Your task to perform on an android device: View the shopping cart on target. Image 0: 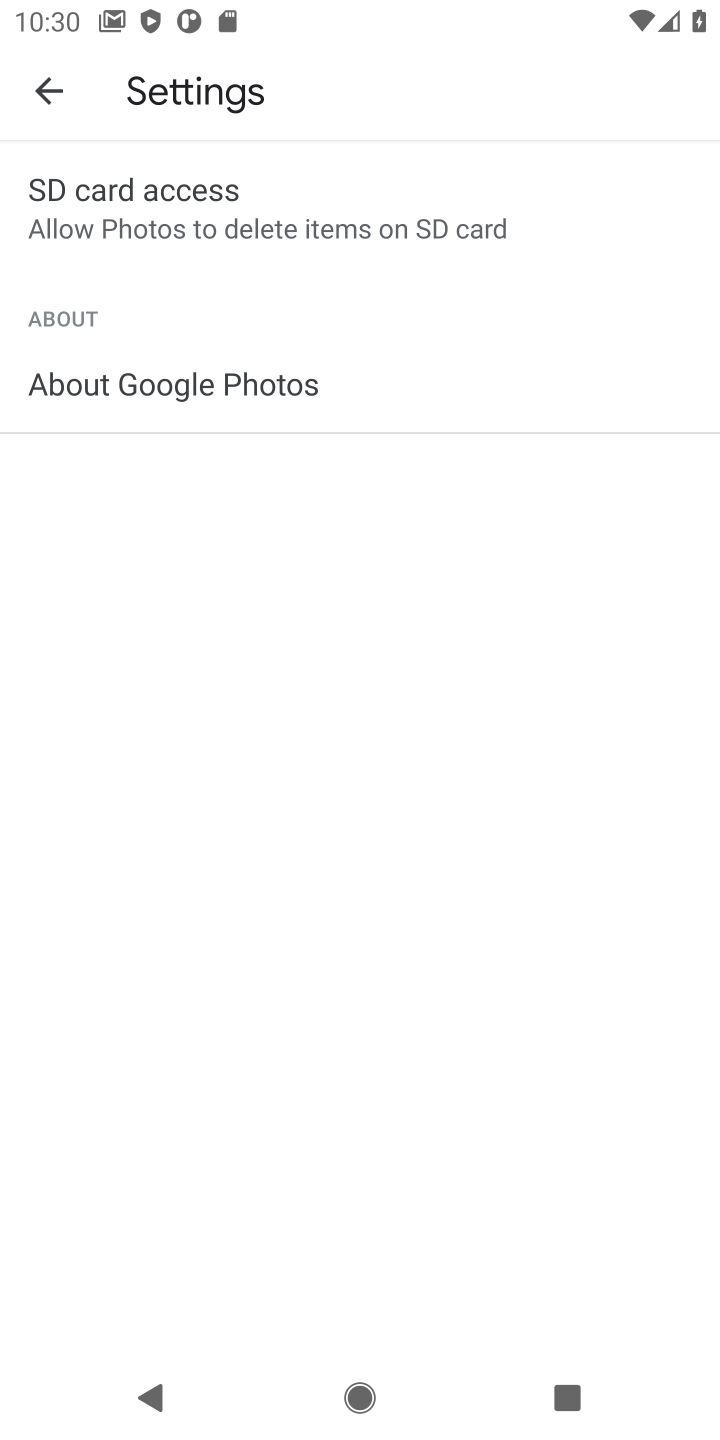
Step 0: press home button
Your task to perform on an android device: View the shopping cart on target. Image 1: 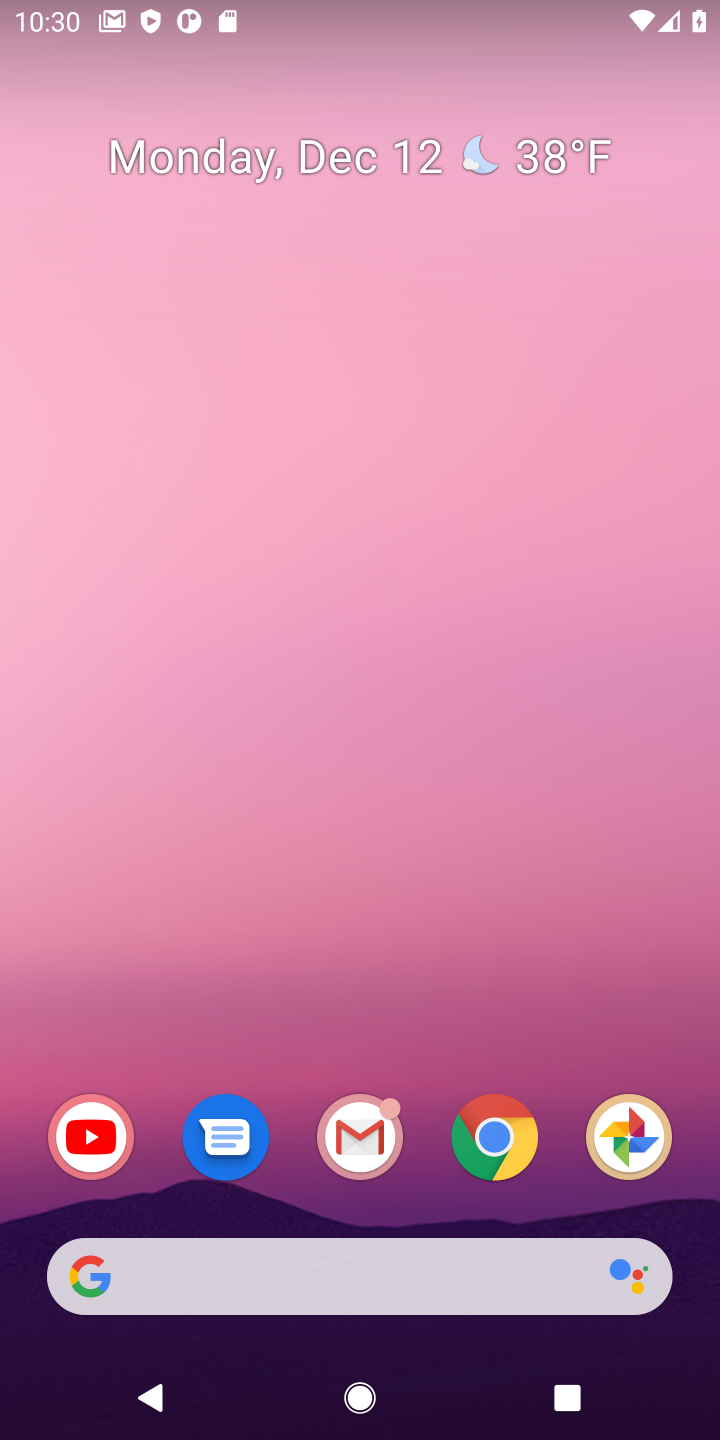
Step 1: click (434, 1268)
Your task to perform on an android device: View the shopping cart on target. Image 2: 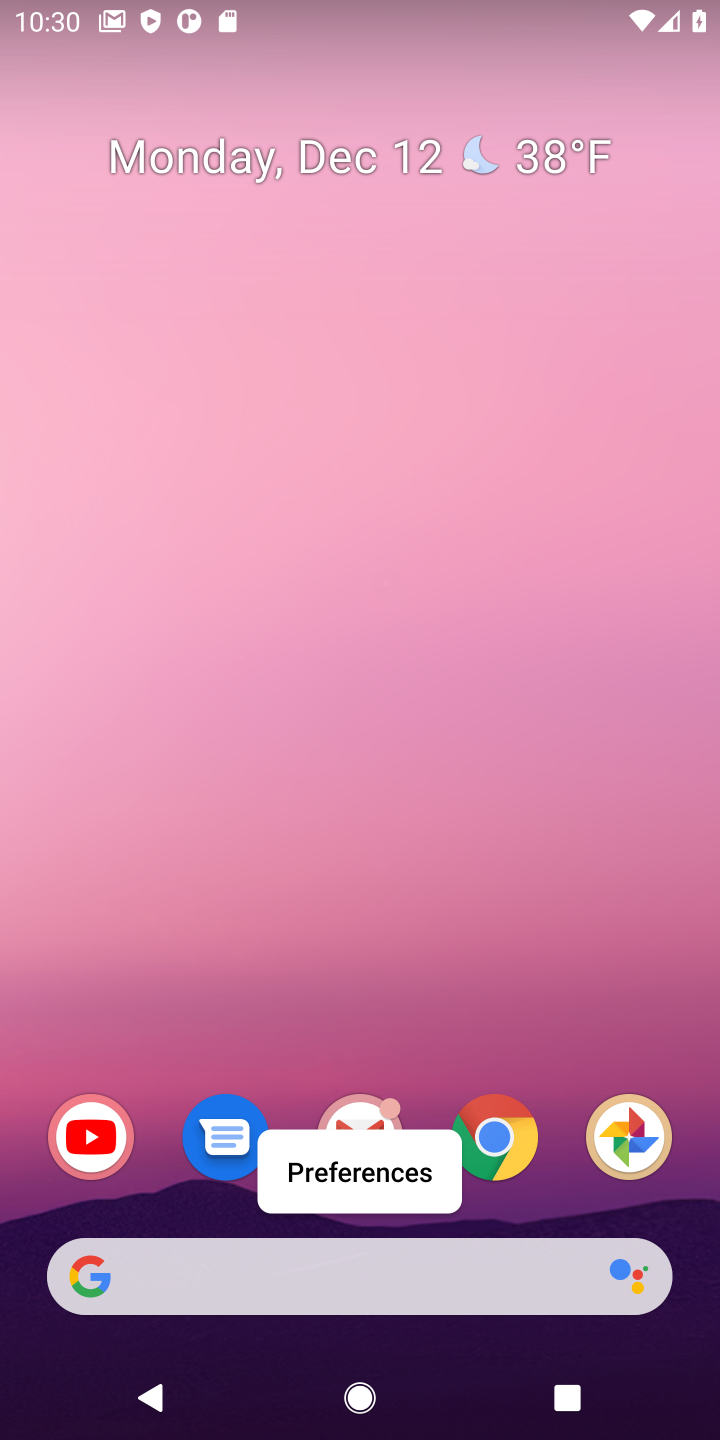
Step 2: click (356, 1286)
Your task to perform on an android device: View the shopping cart on target. Image 3: 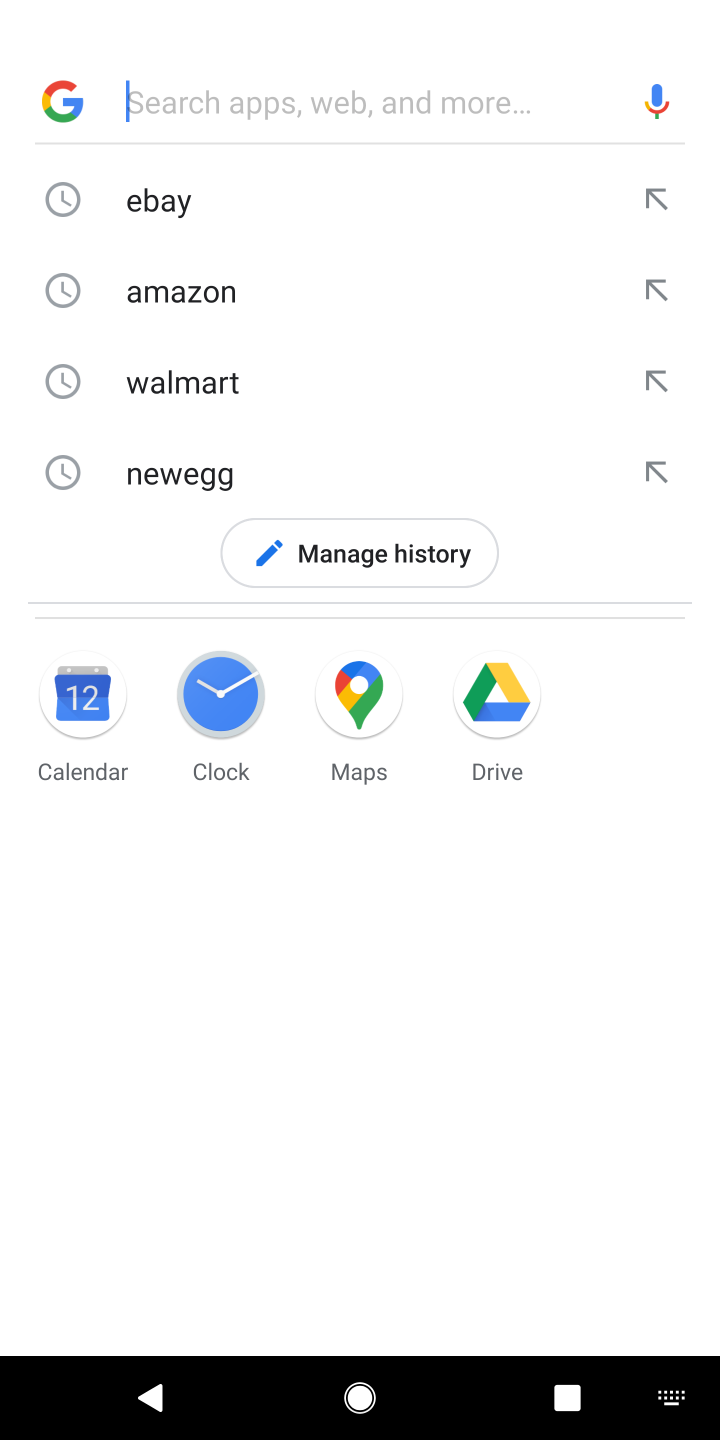
Step 3: type "target"
Your task to perform on an android device: View the shopping cart on target. Image 4: 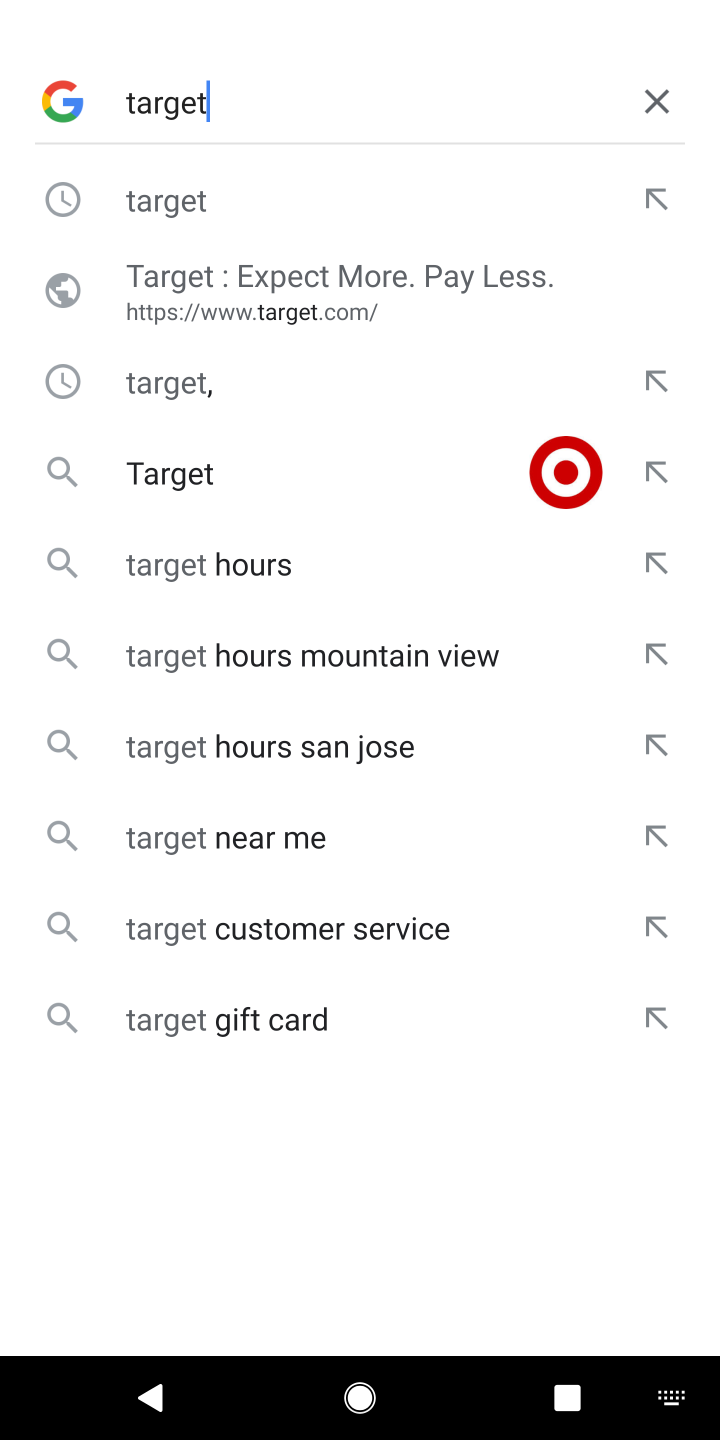
Step 4: click (396, 486)
Your task to perform on an android device: View the shopping cart on target. Image 5: 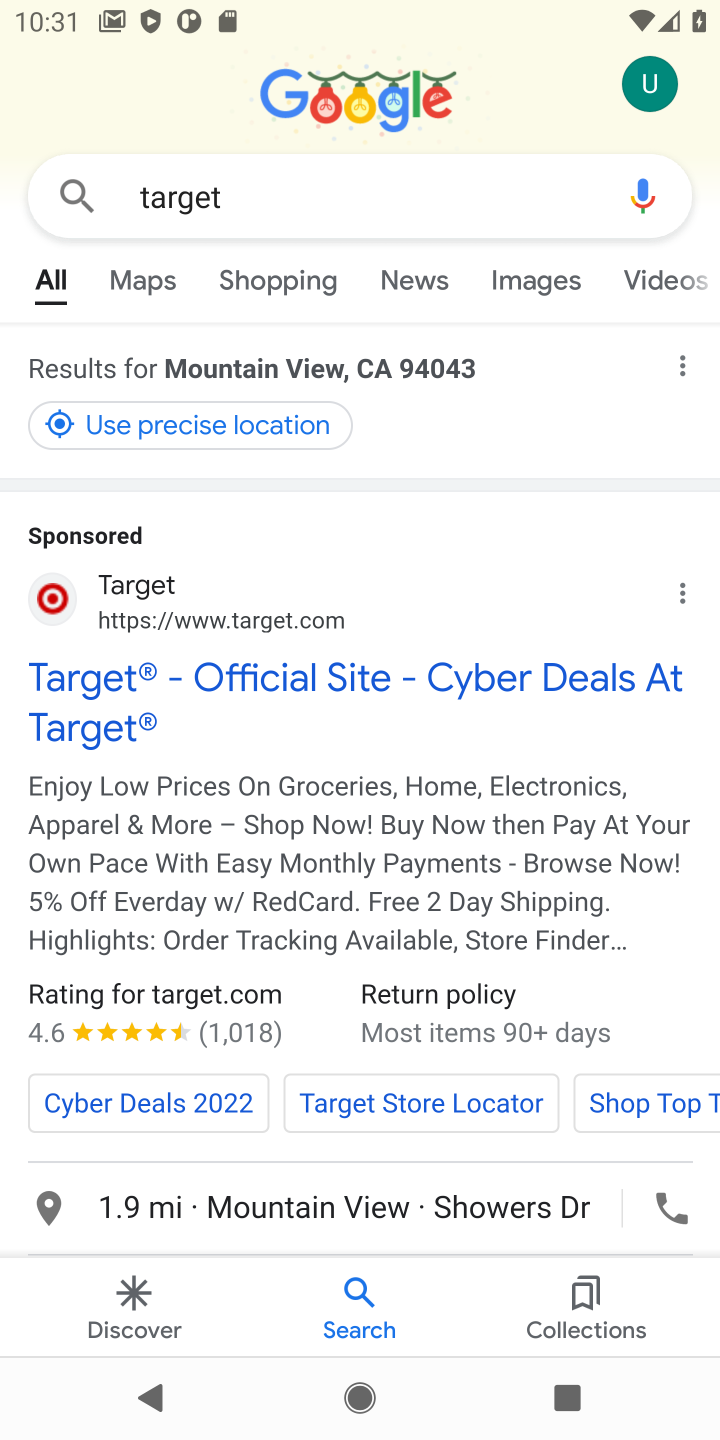
Step 5: click (173, 687)
Your task to perform on an android device: View the shopping cart on target. Image 6: 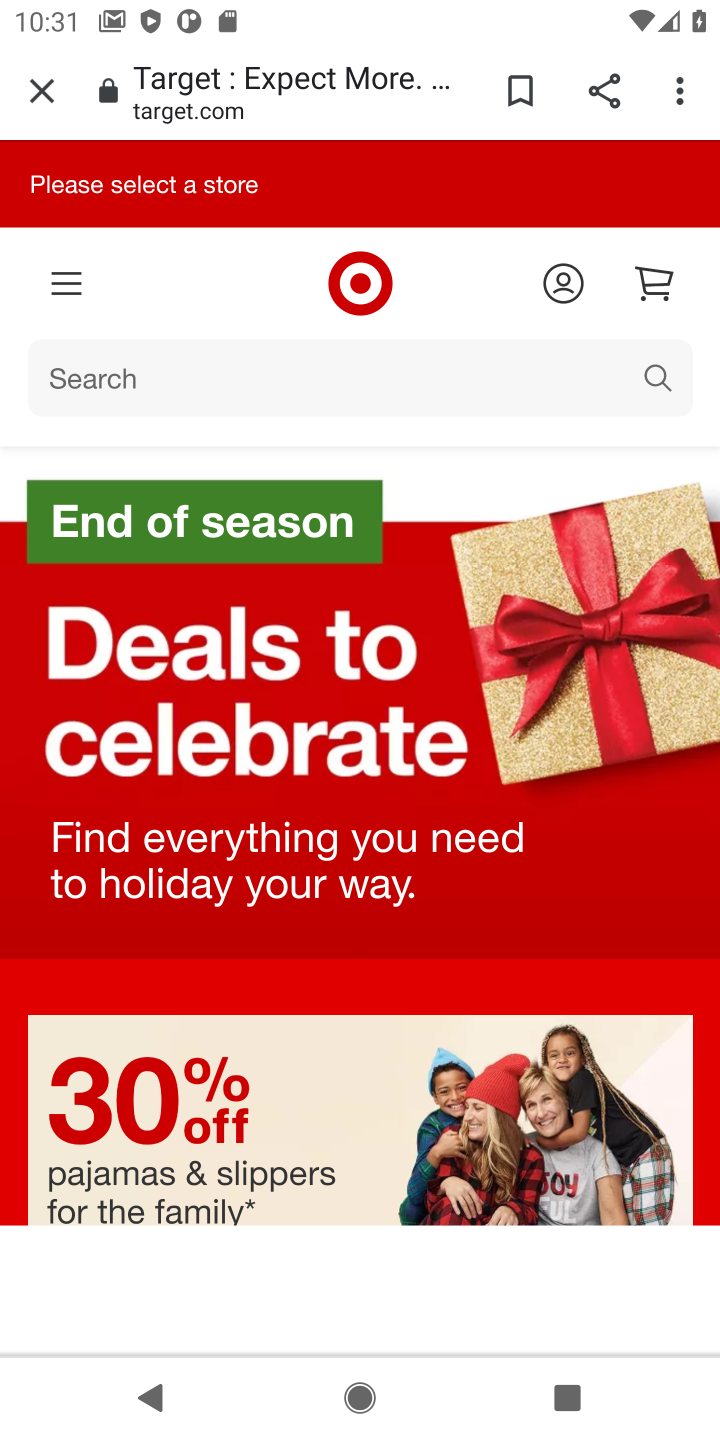
Step 6: click (207, 396)
Your task to perform on an android device: View the shopping cart on target. Image 7: 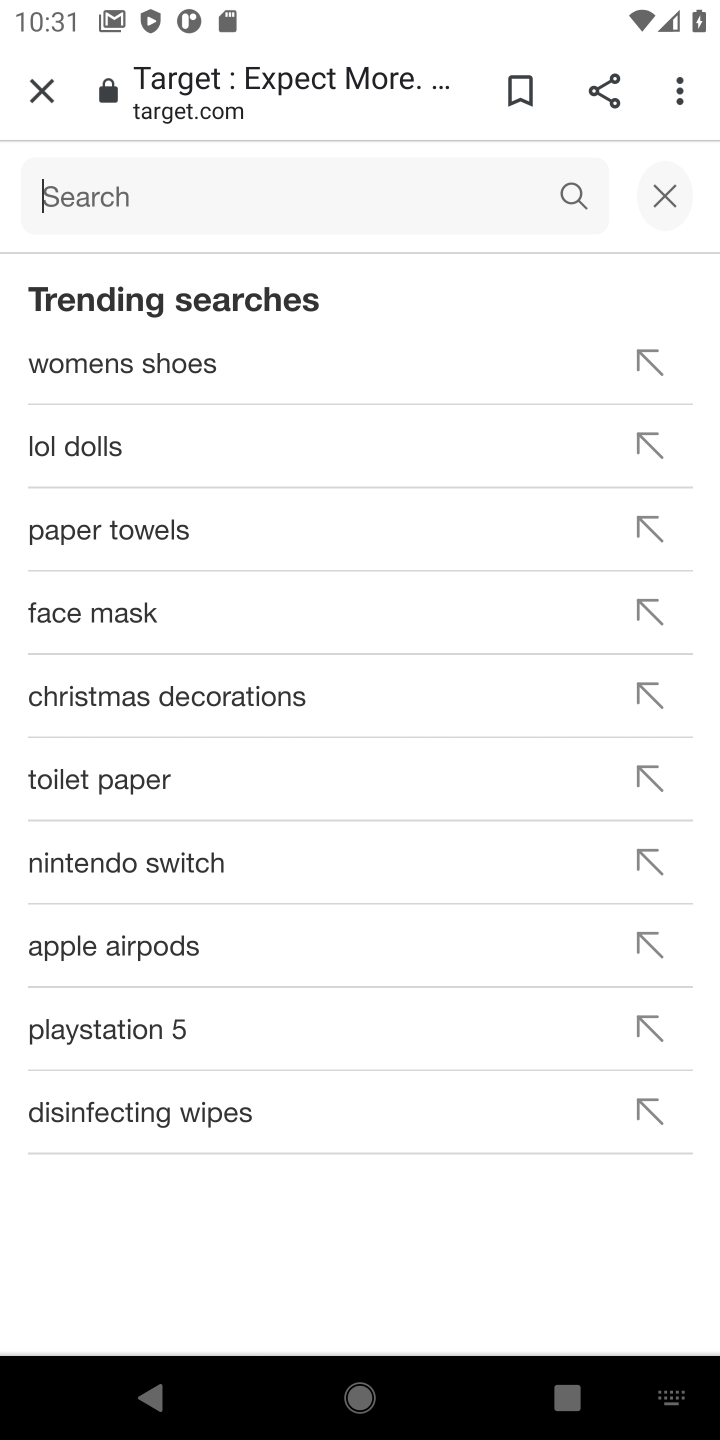
Step 7: click (43, 99)
Your task to perform on an android device: View the shopping cart on target. Image 8: 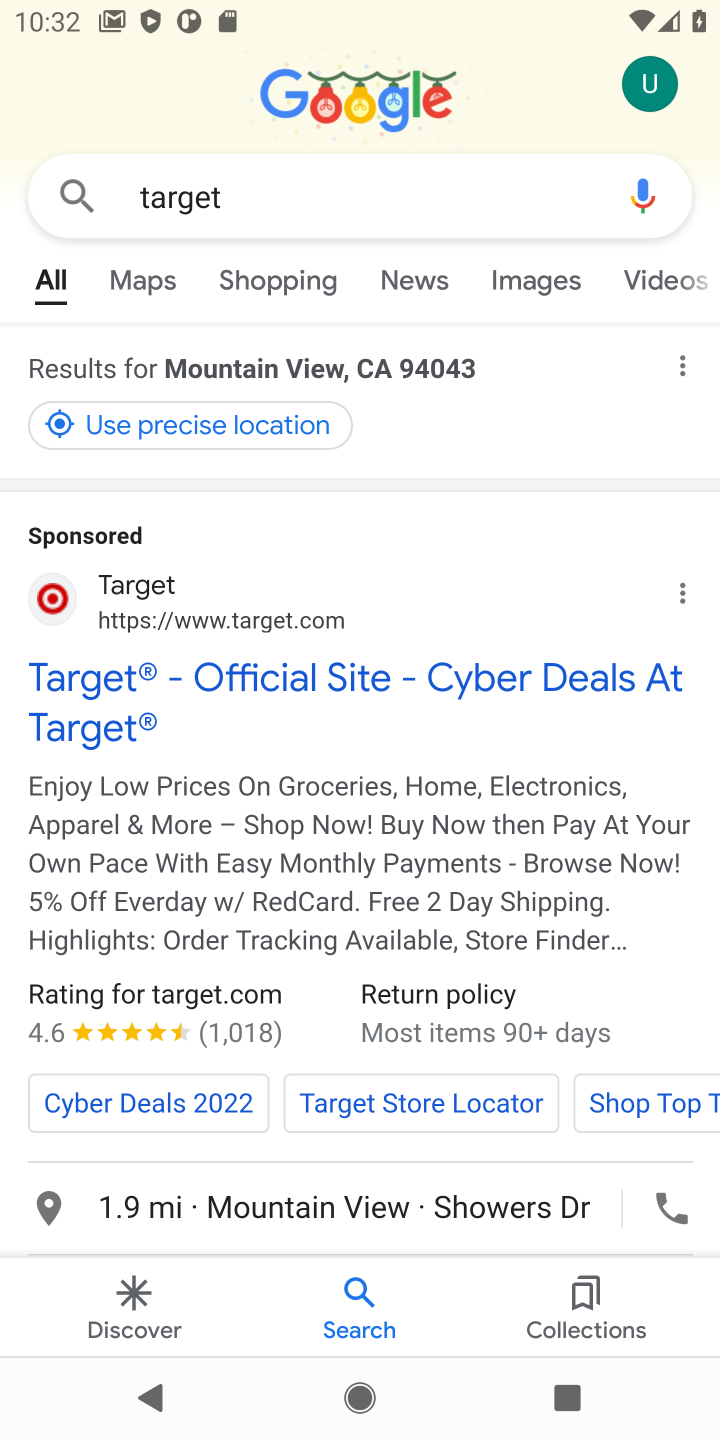
Step 8: click (219, 681)
Your task to perform on an android device: View the shopping cart on target. Image 9: 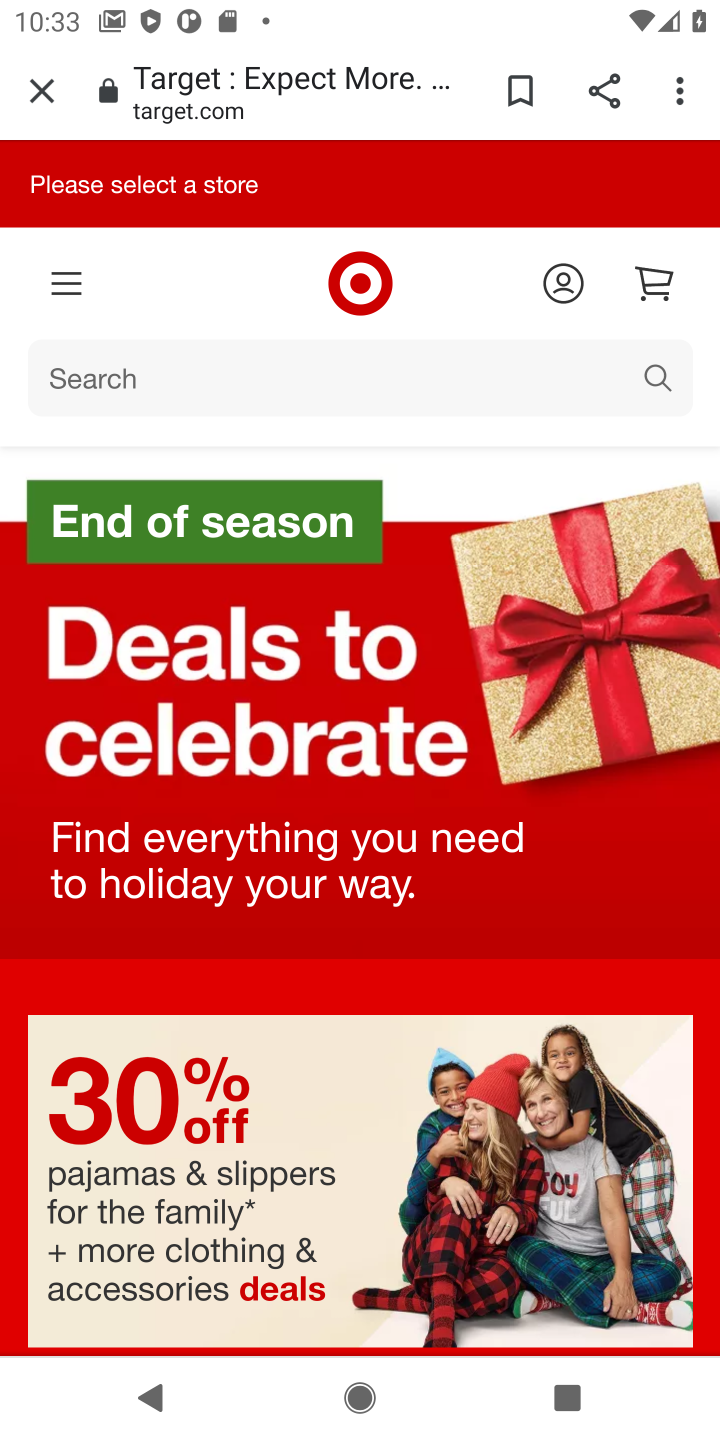
Step 9: click (660, 262)
Your task to perform on an android device: View the shopping cart on target. Image 10: 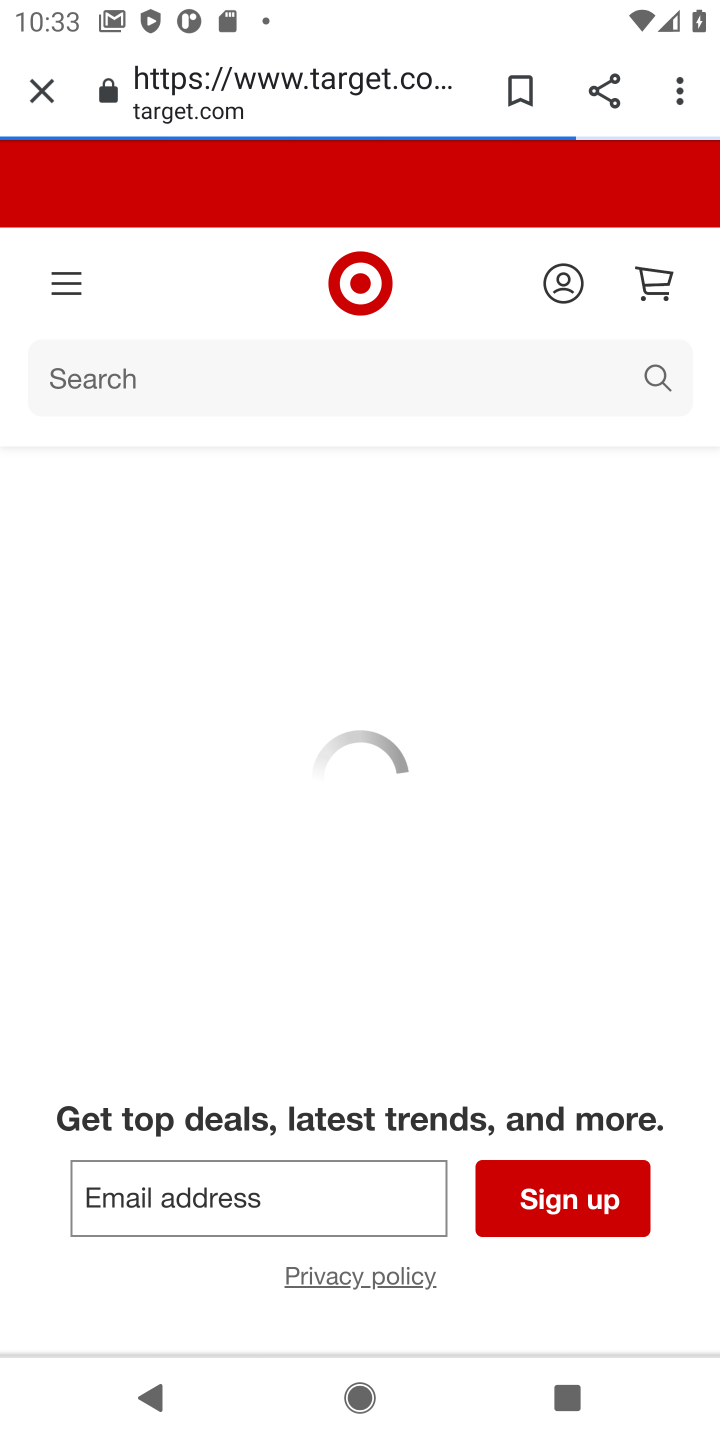
Step 10: task complete